Your task to perform on an android device: change the clock display to digital Image 0: 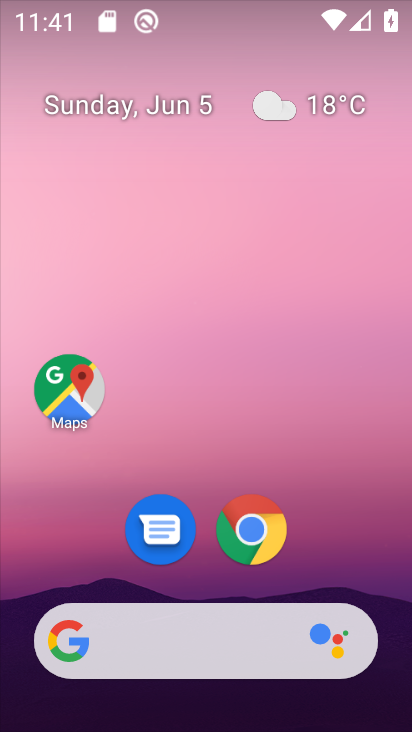
Step 0: drag from (354, 557) to (280, 2)
Your task to perform on an android device: change the clock display to digital Image 1: 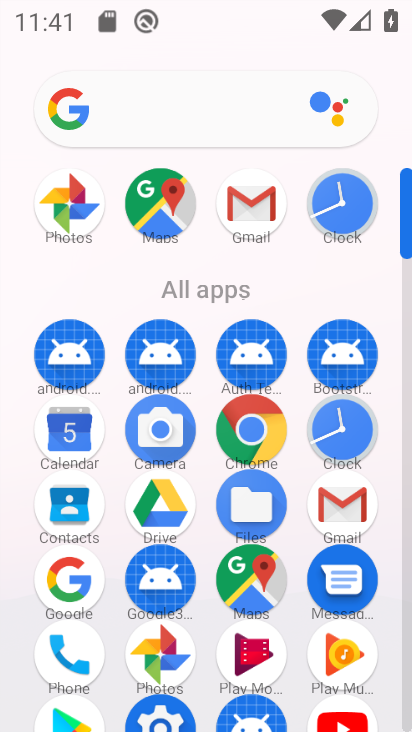
Step 1: click (345, 438)
Your task to perform on an android device: change the clock display to digital Image 2: 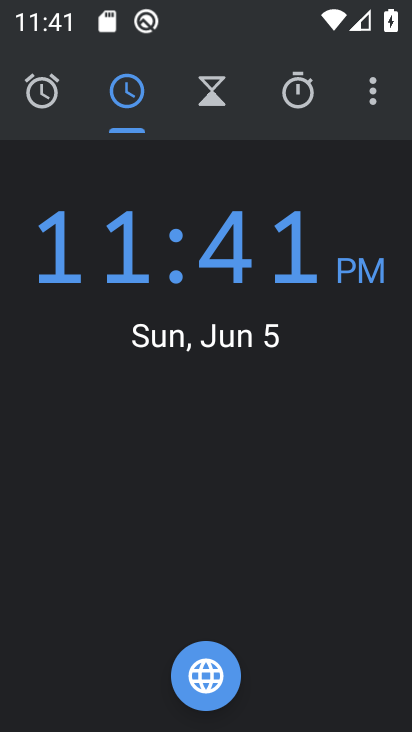
Step 2: click (361, 89)
Your task to perform on an android device: change the clock display to digital Image 3: 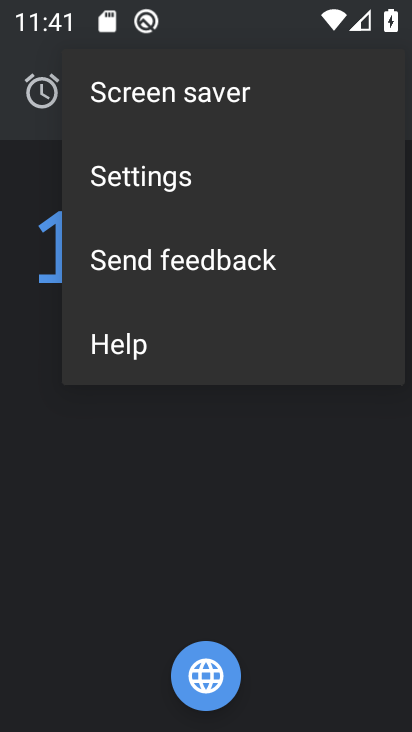
Step 3: click (127, 178)
Your task to perform on an android device: change the clock display to digital Image 4: 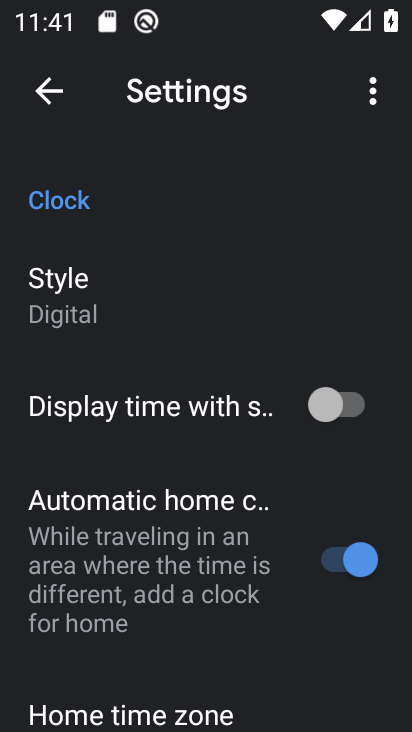
Step 4: click (61, 300)
Your task to perform on an android device: change the clock display to digital Image 5: 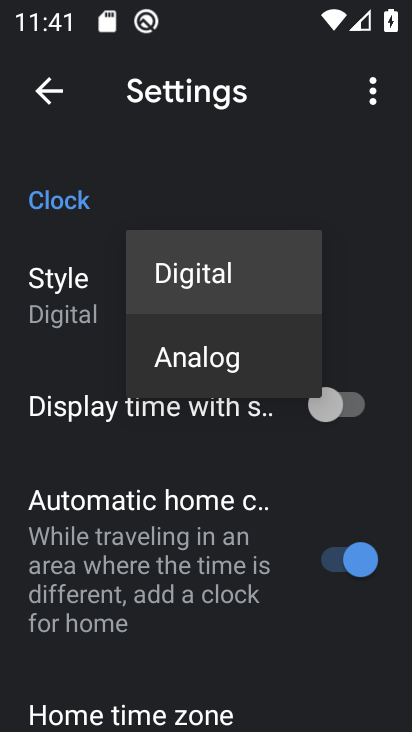
Step 5: click (193, 266)
Your task to perform on an android device: change the clock display to digital Image 6: 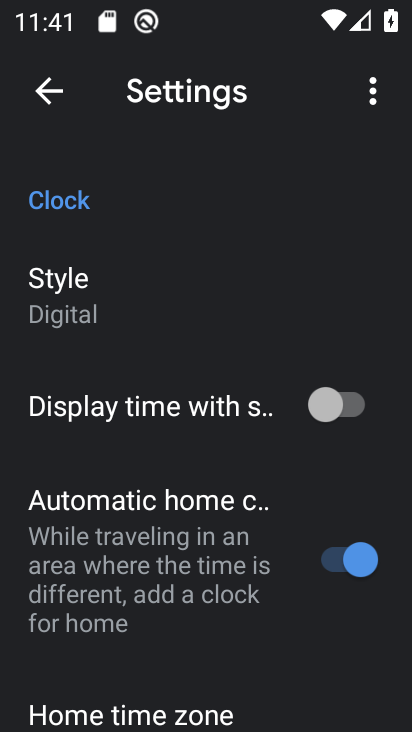
Step 6: task complete